Your task to perform on an android device: Open the calendar app, open the side menu, and click the "Day" option Image 0: 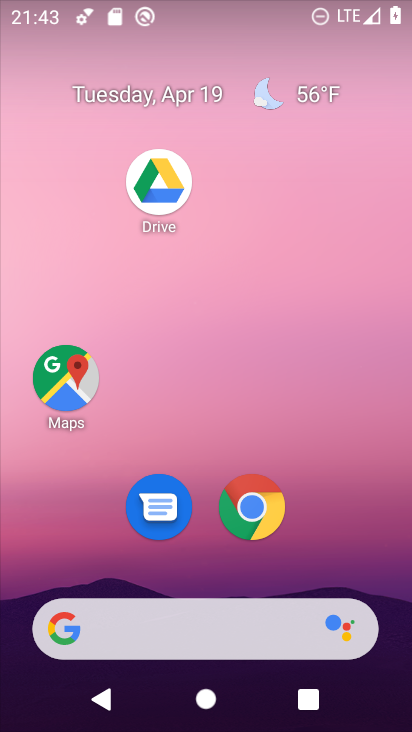
Step 0: drag from (364, 518) to (354, 193)
Your task to perform on an android device: Open the calendar app, open the side menu, and click the "Day" option Image 1: 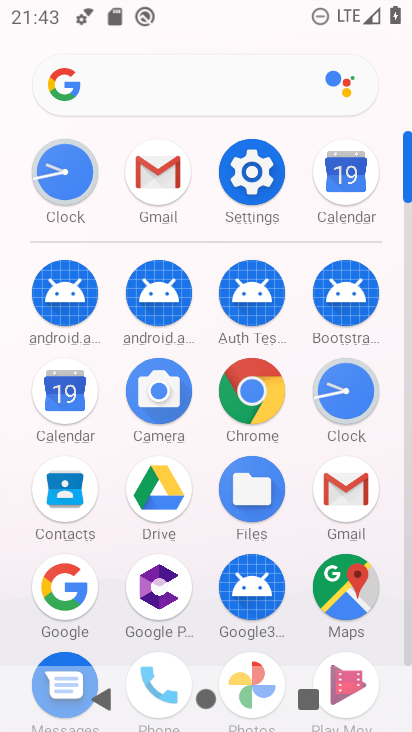
Step 1: click (360, 187)
Your task to perform on an android device: Open the calendar app, open the side menu, and click the "Day" option Image 2: 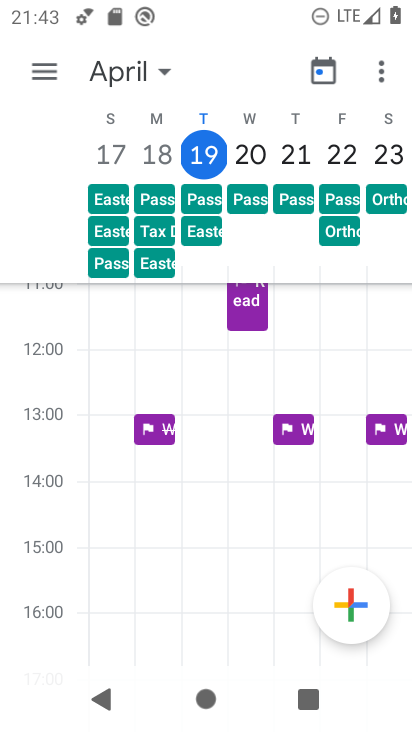
Step 2: click (55, 70)
Your task to perform on an android device: Open the calendar app, open the side menu, and click the "Day" option Image 3: 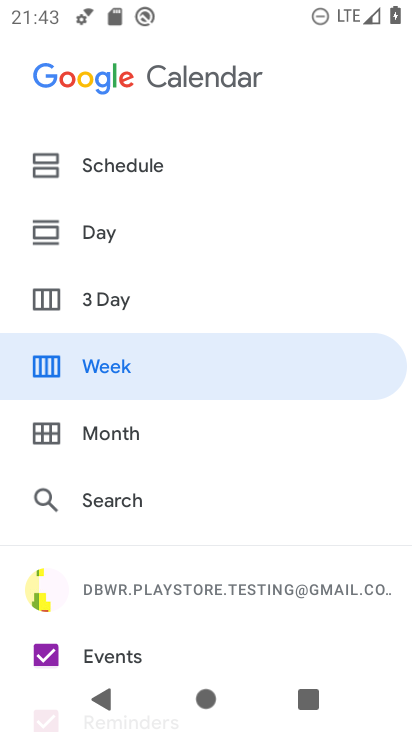
Step 3: click (50, 227)
Your task to perform on an android device: Open the calendar app, open the side menu, and click the "Day" option Image 4: 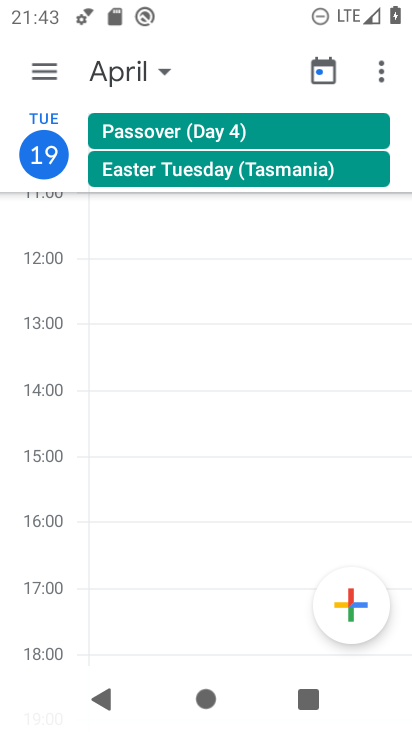
Step 4: task complete